Your task to perform on an android device: Open the calendar app, open the side menu, and click the "Day" option Image 0: 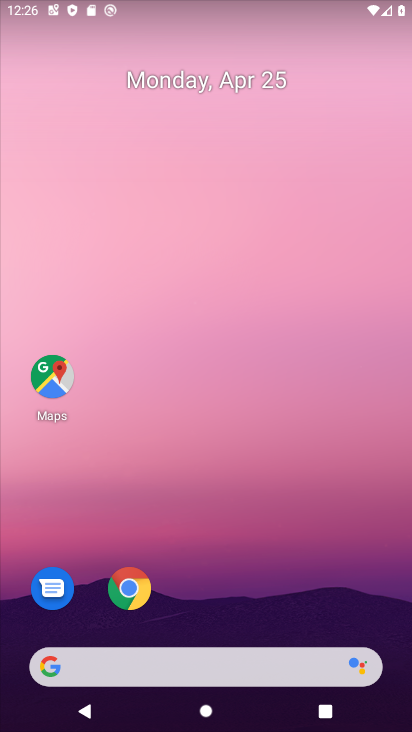
Step 0: drag from (179, 637) to (321, 9)
Your task to perform on an android device: Open the calendar app, open the side menu, and click the "Day" option Image 1: 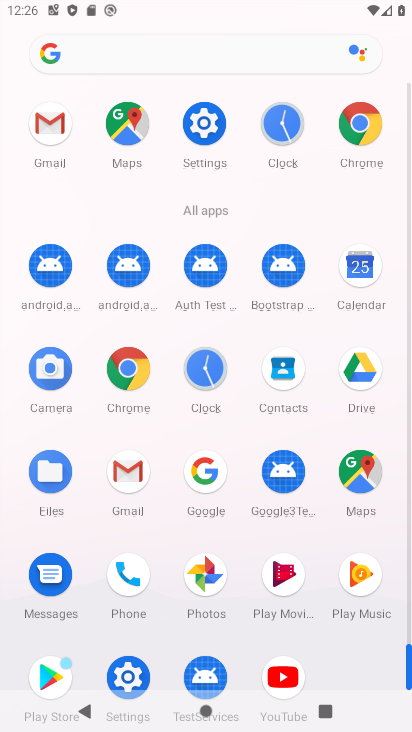
Step 1: click (359, 281)
Your task to perform on an android device: Open the calendar app, open the side menu, and click the "Day" option Image 2: 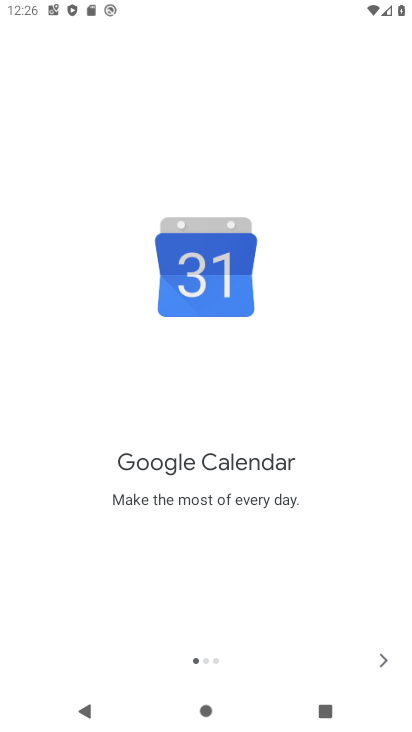
Step 2: click (386, 665)
Your task to perform on an android device: Open the calendar app, open the side menu, and click the "Day" option Image 3: 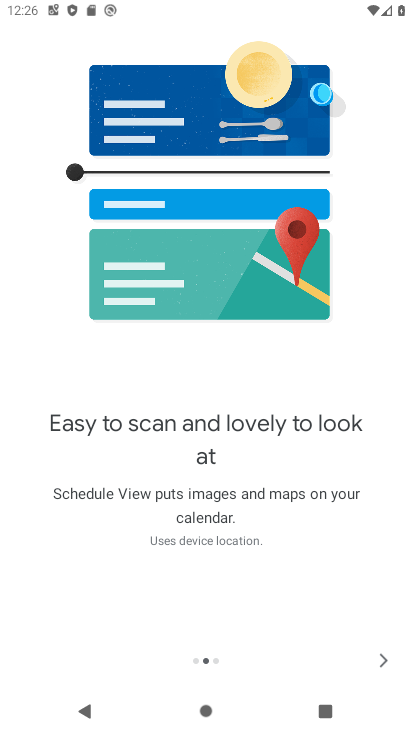
Step 3: click (387, 660)
Your task to perform on an android device: Open the calendar app, open the side menu, and click the "Day" option Image 4: 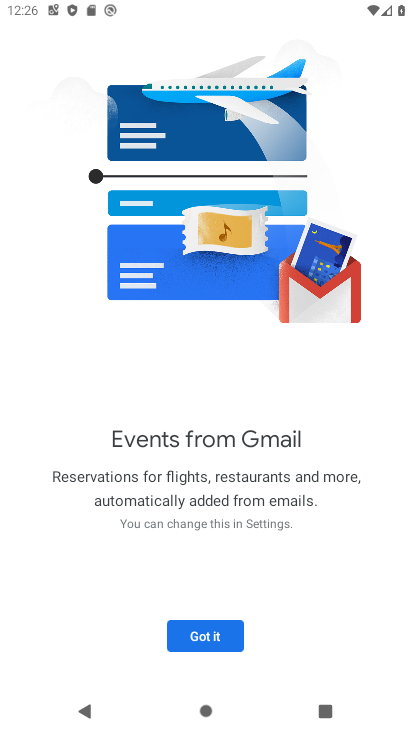
Step 4: click (208, 647)
Your task to perform on an android device: Open the calendar app, open the side menu, and click the "Day" option Image 5: 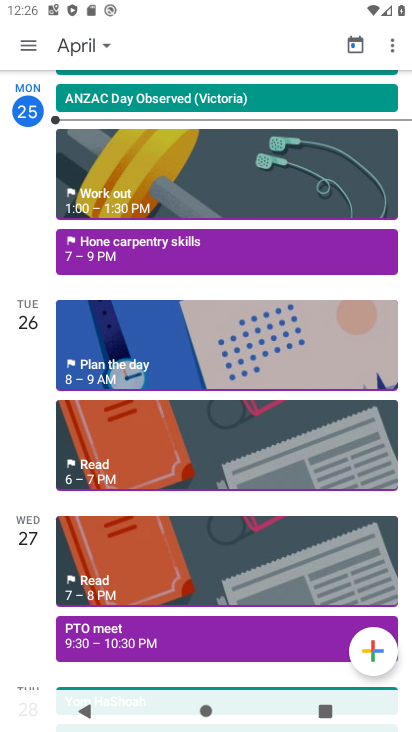
Step 5: click (36, 45)
Your task to perform on an android device: Open the calendar app, open the side menu, and click the "Day" option Image 6: 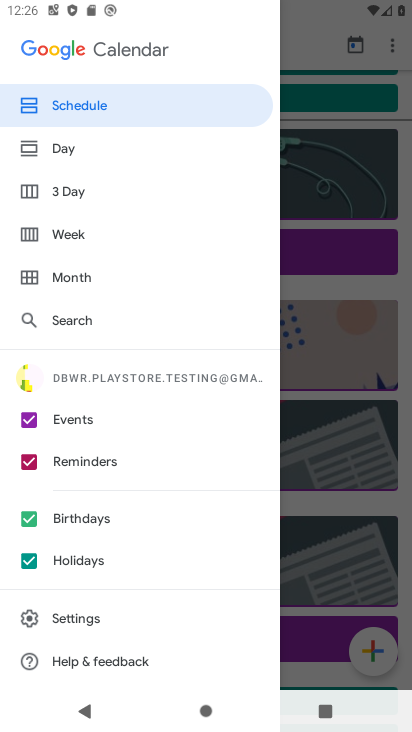
Step 6: click (101, 143)
Your task to perform on an android device: Open the calendar app, open the side menu, and click the "Day" option Image 7: 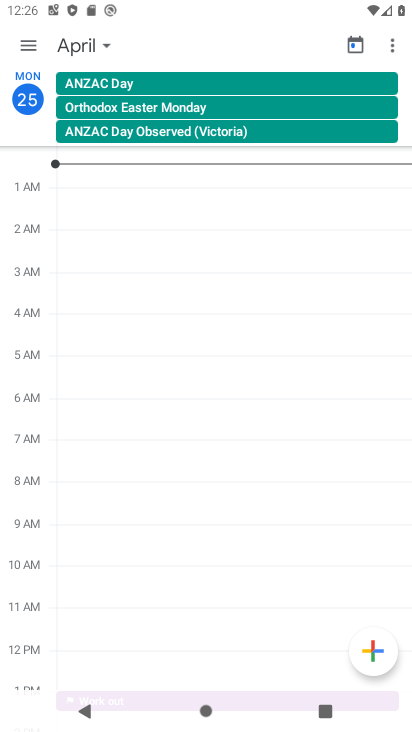
Step 7: task complete